Your task to perform on an android device: change the clock style Image 0: 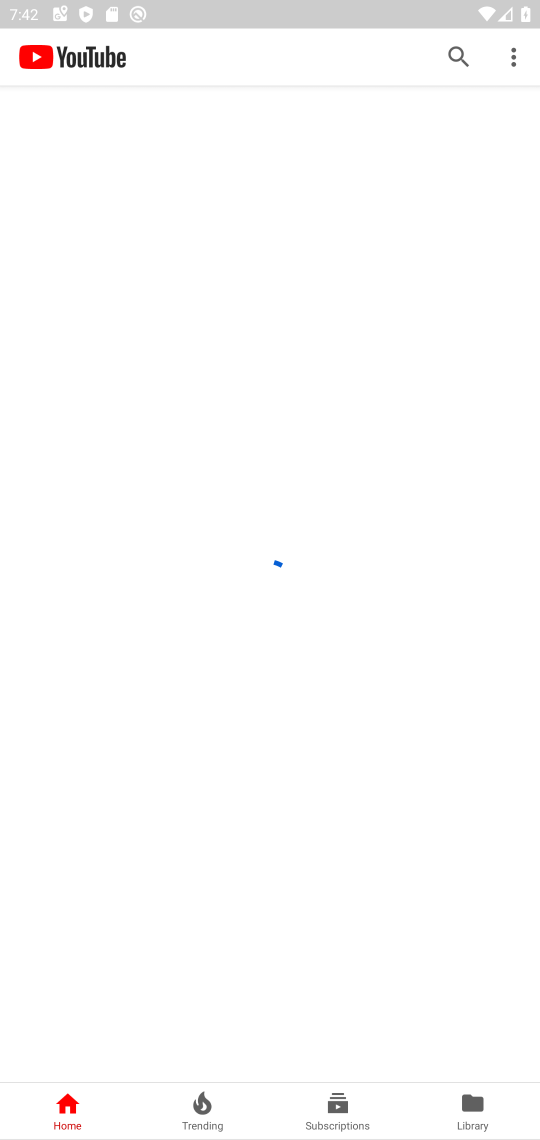
Step 0: click (272, 13)
Your task to perform on an android device: change the clock style Image 1: 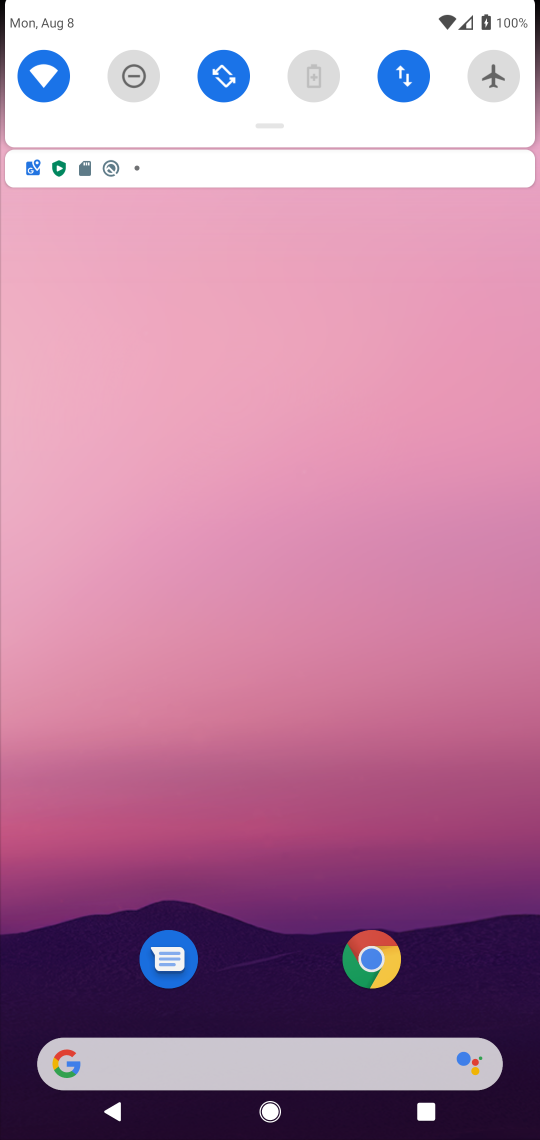
Step 1: drag from (463, 964) to (291, 105)
Your task to perform on an android device: change the clock style Image 2: 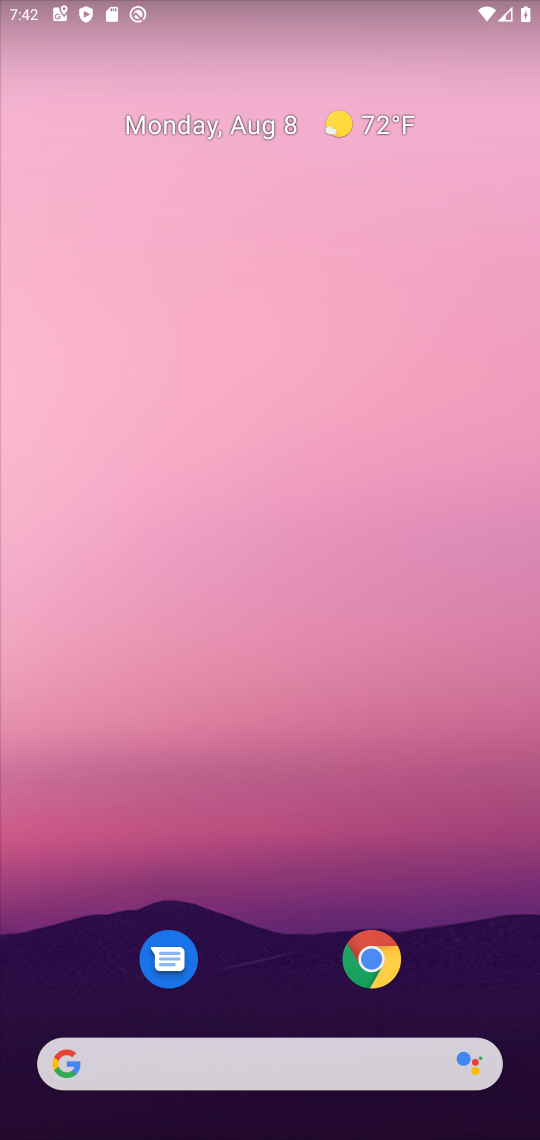
Step 2: drag from (515, 907) to (76, 180)
Your task to perform on an android device: change the clock style Image 3: 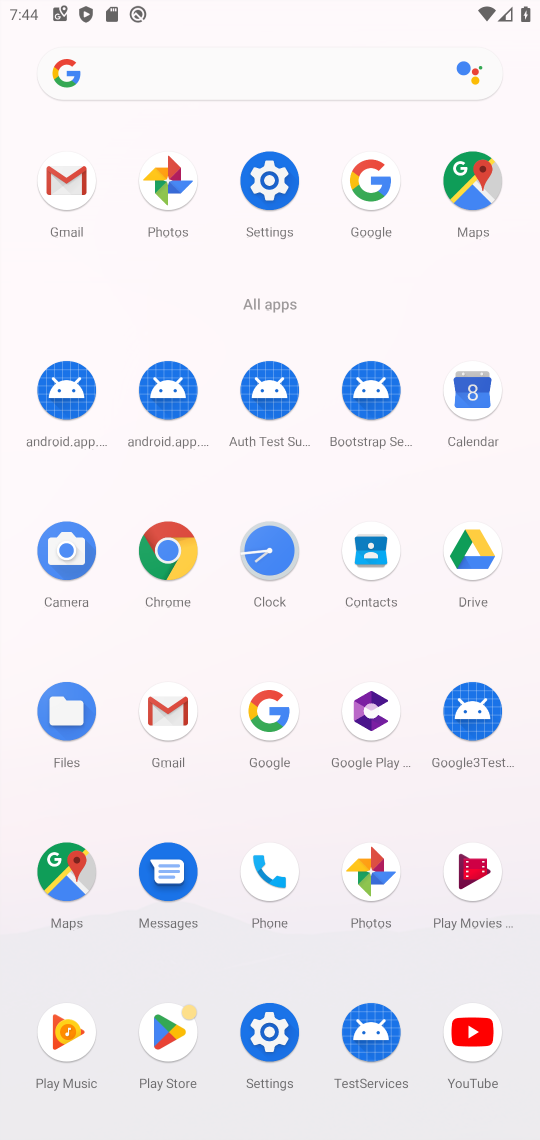
Step 3: click (282, 538)
Your task to perform on an android device: change the clock style Image 4: 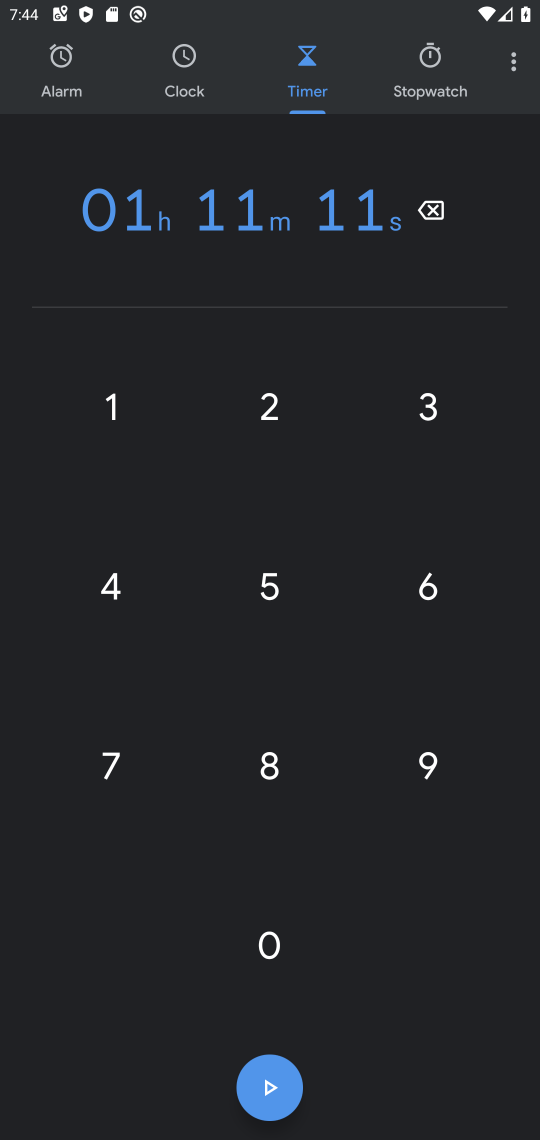
Step 4: click (512, 54)
Your task to perform on an android device: change the clock style Image 5: 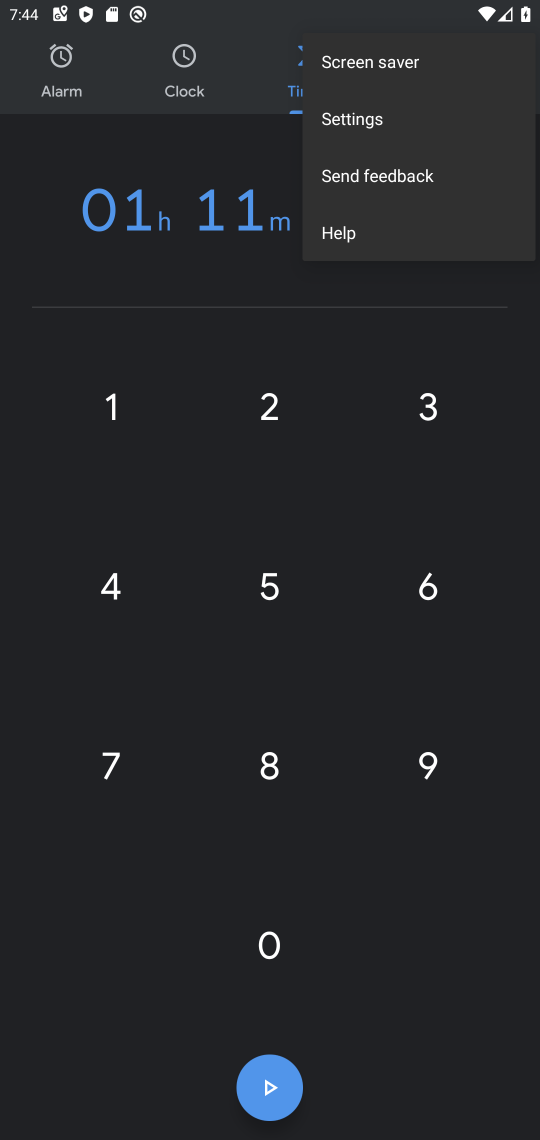
Step 5: click (399, 121)
Your task to perform on an android device: change the clock style Image 6: 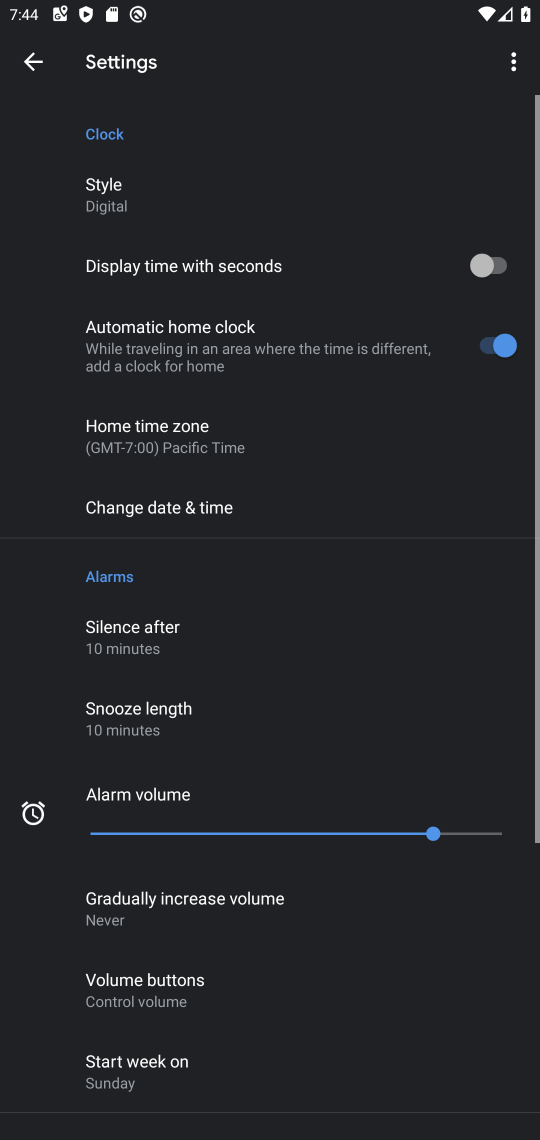
Step 6: click (126, 211)
Your task to perform on an android device: change the clock style Image 7: 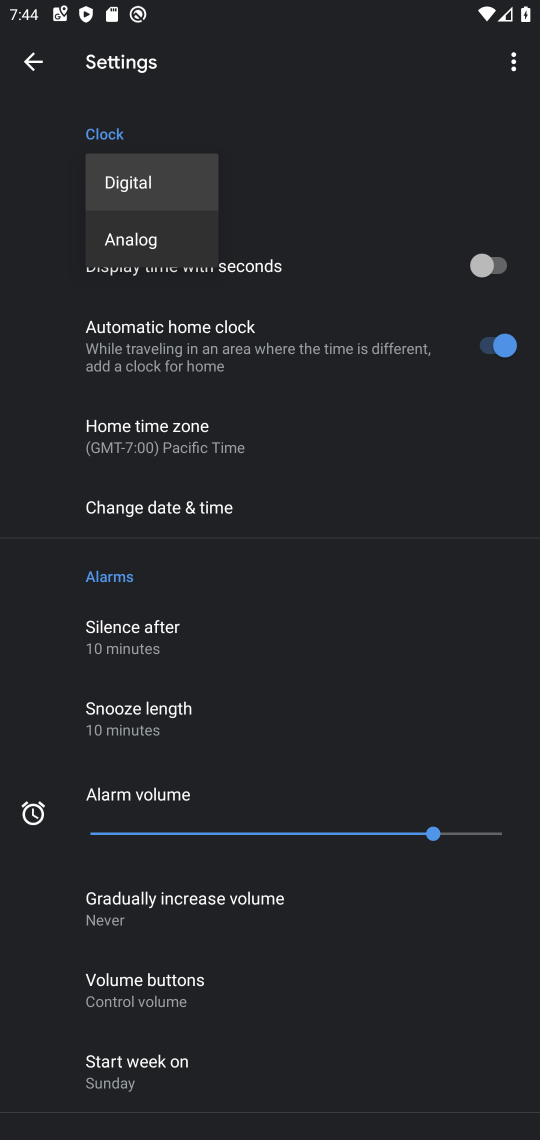
Step 7: click (151, 238)
Your task to perform on an android device: change the clock style Image 8: 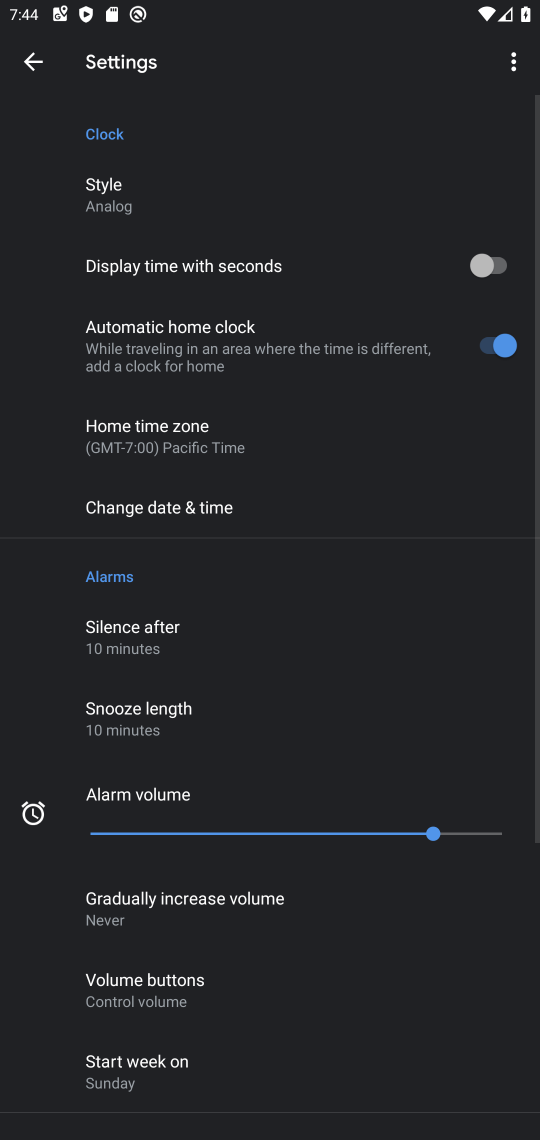
Step 8: task complete